Your task to perform on an android device: Show the shopping cart on target.com. Add razer nari to the cart on target.com Image 0: 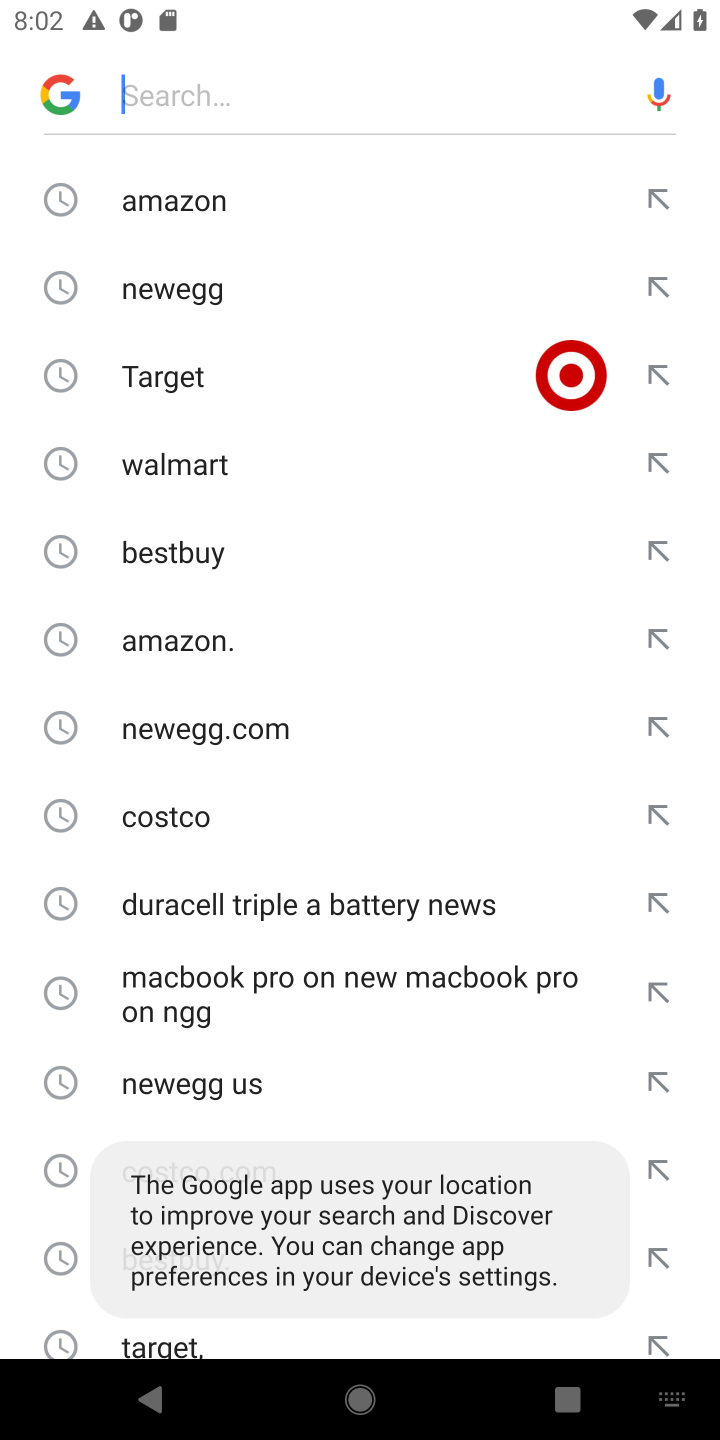
Step 0: press home button
Your task to perform on an android device: Show the shopping cart on target.com. Add razer nari to the cart on target.com Image 1: 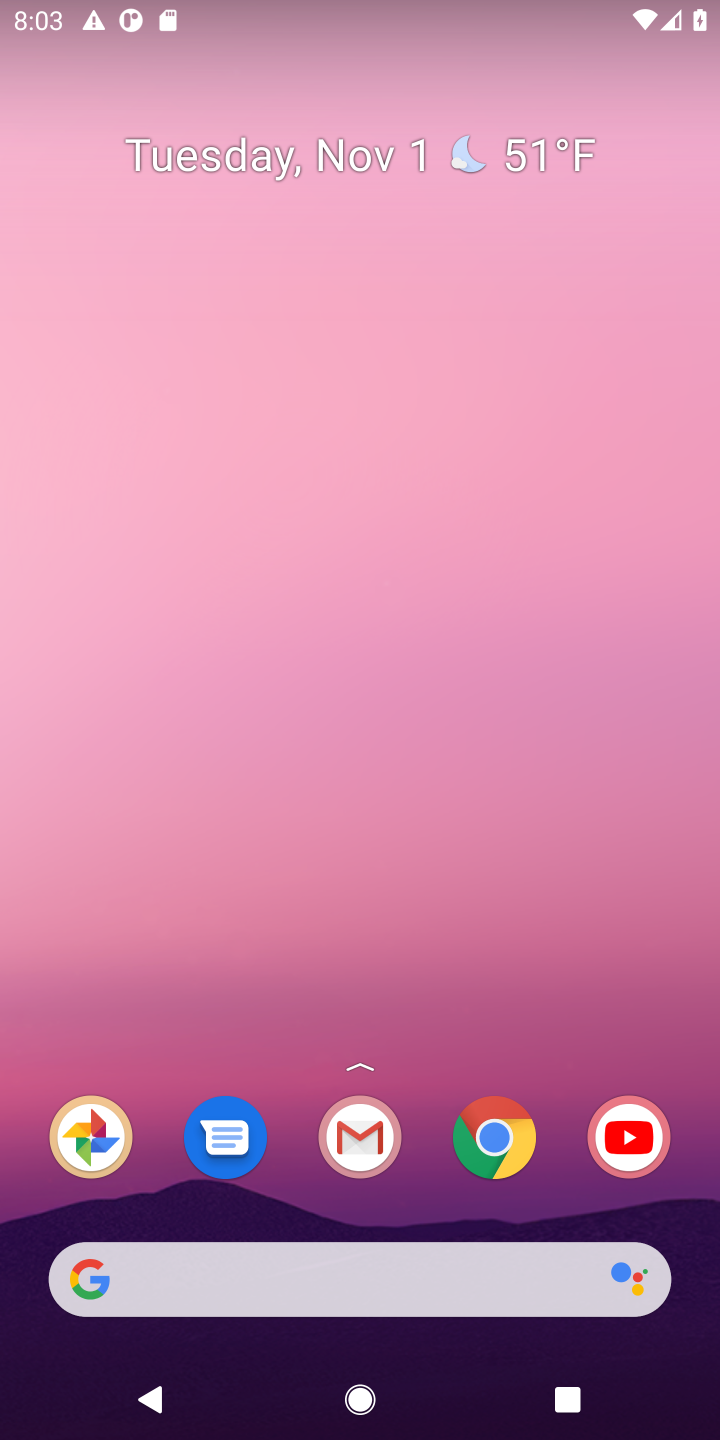
Step 1: click (476, 1153)
Your task to perform on an android device: Show the shopping cart on target.com. Add razer nari to the cart on target.com Image 2: 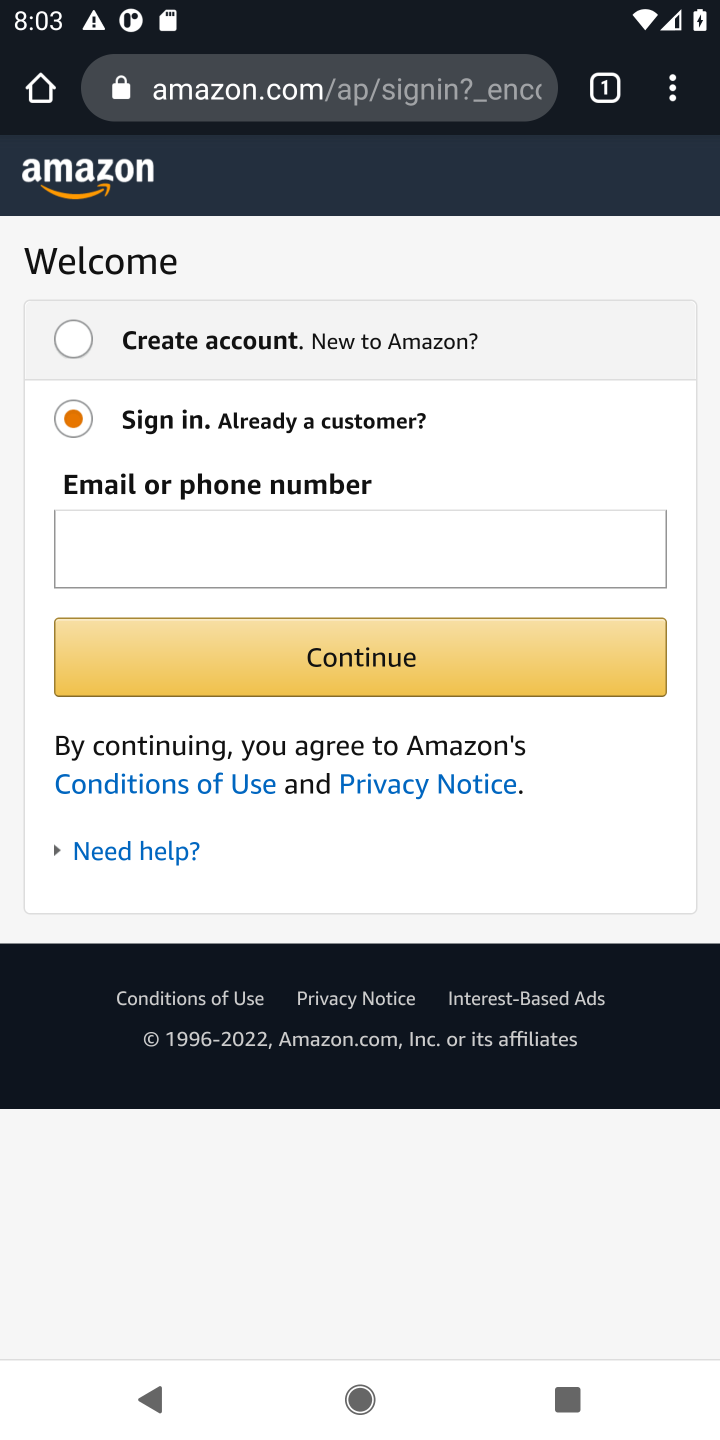
Step 2: click (334, 95)
Your task to perform on an android device: Show the shopping cart on target.com. Add razer nari to the cart on target.com Image 3: 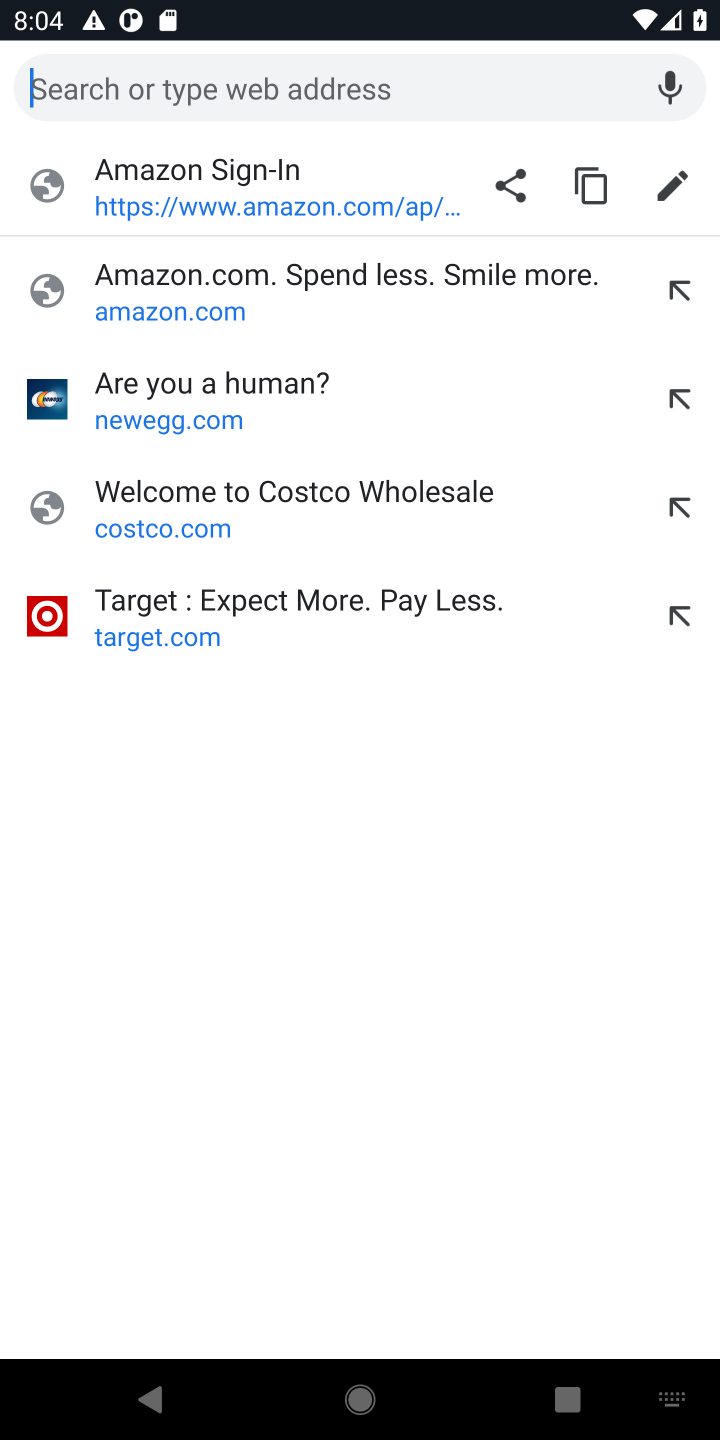
Step 3: type "target.com"
Your task to perform on an android device: Show the shopping cart on target.com. Add razer nari to the cart on target.com Image 4: 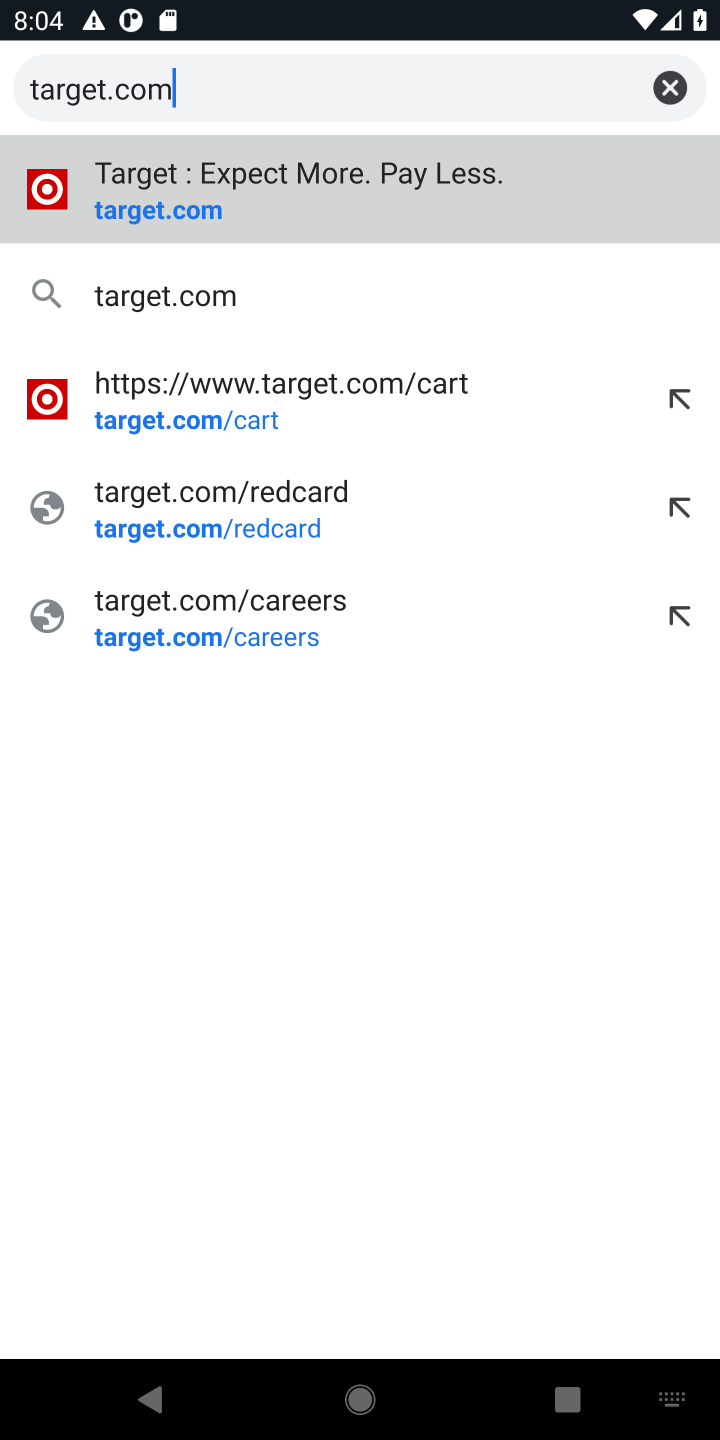
Step 4: click (395, 180)
Your task to perform on an android device: Show the shopping cart on target.com. Add razer nari to the cart on target.com Image 5: 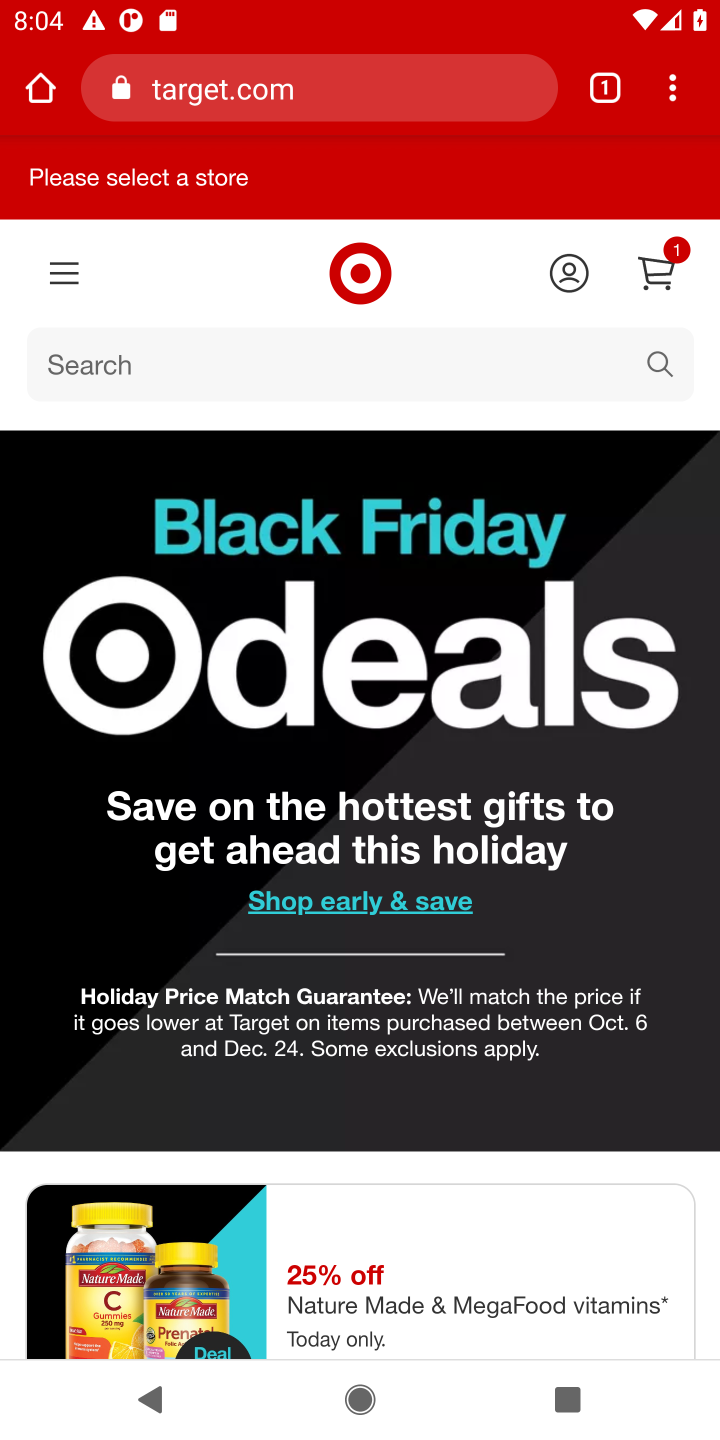
Step 5: click (437, 379)
Your task to perform on an android device: Show the shopping cart on target.com. Add razer nari to the cart on target.com Image 6: 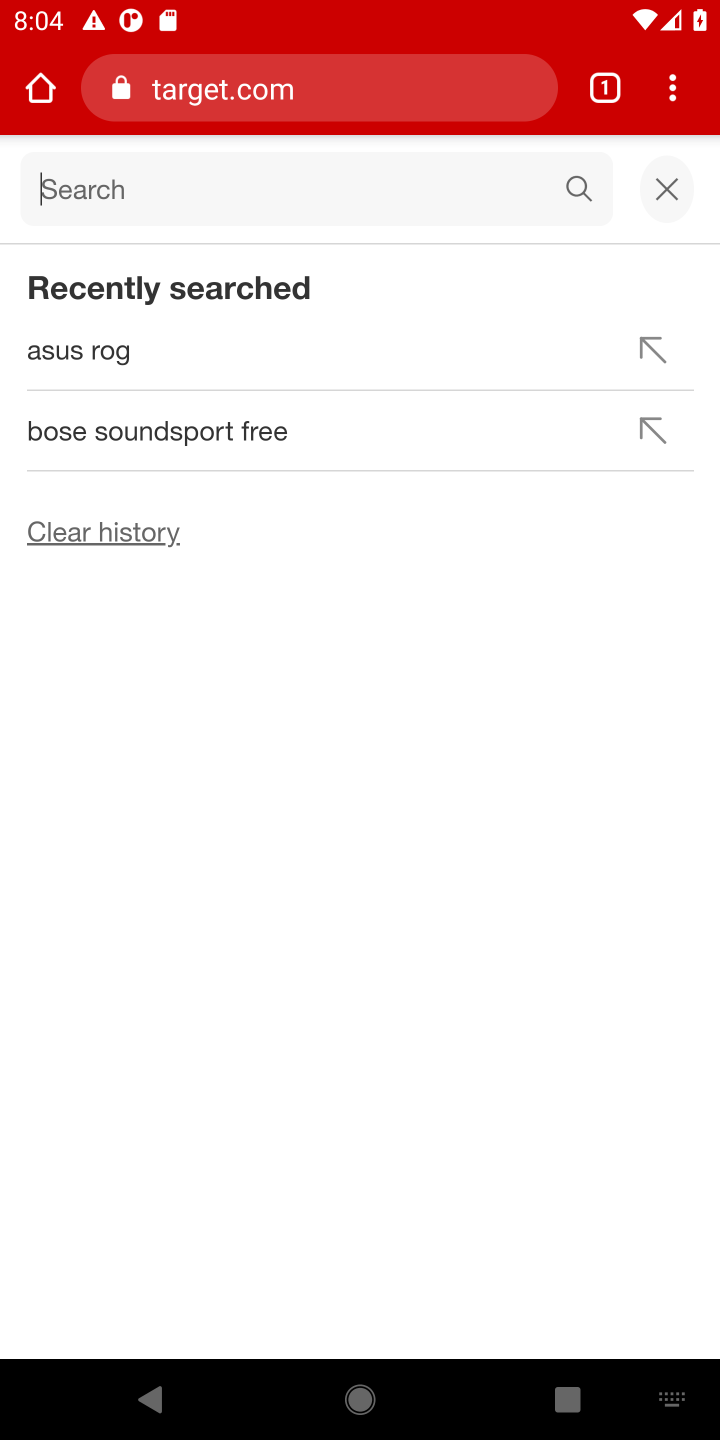
Step 6: type "razer nari"
Your task to perform on an android device: Show the shopping cart on target.com. Add razer nari to the cart on target.com Image 7: 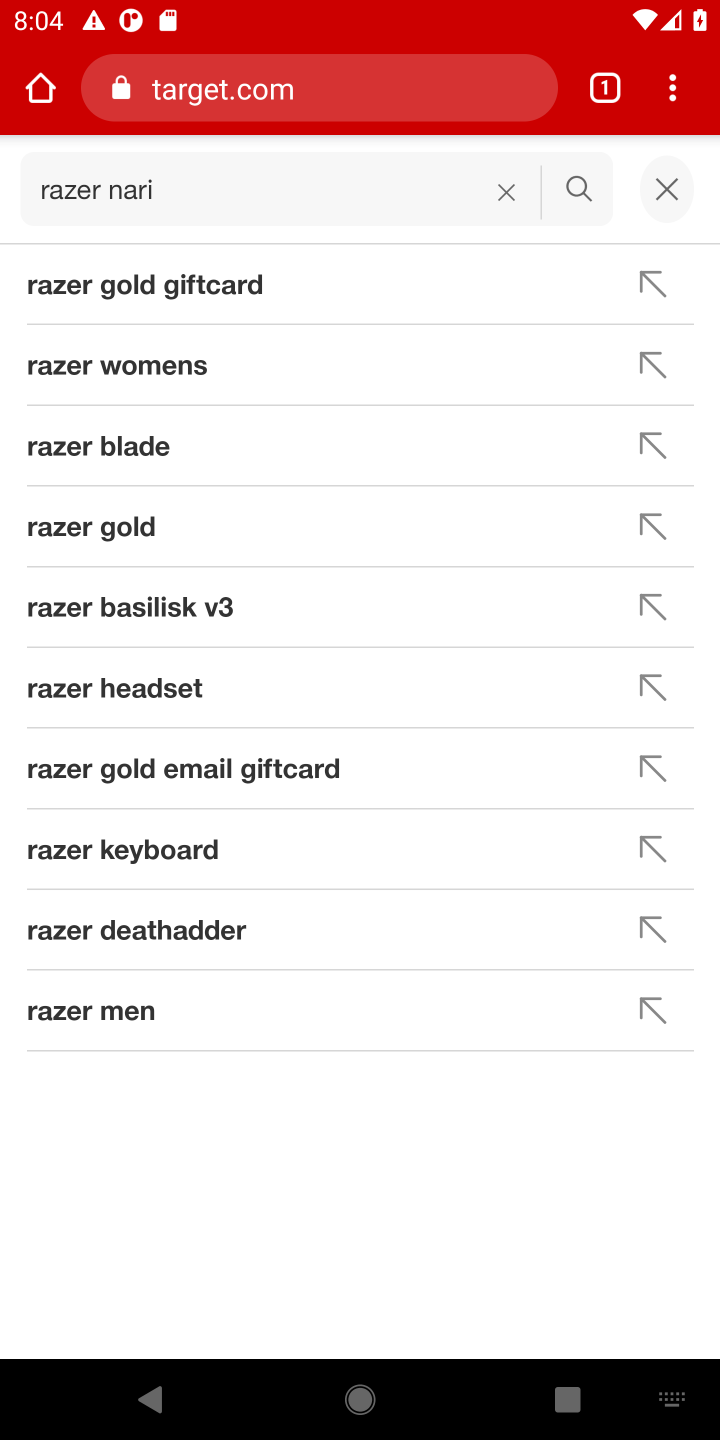
Step 7: press enter
Your task to perform on an android device: Show the shopping cart on target.com. Add razer nari to the cart on target.com Image 8: 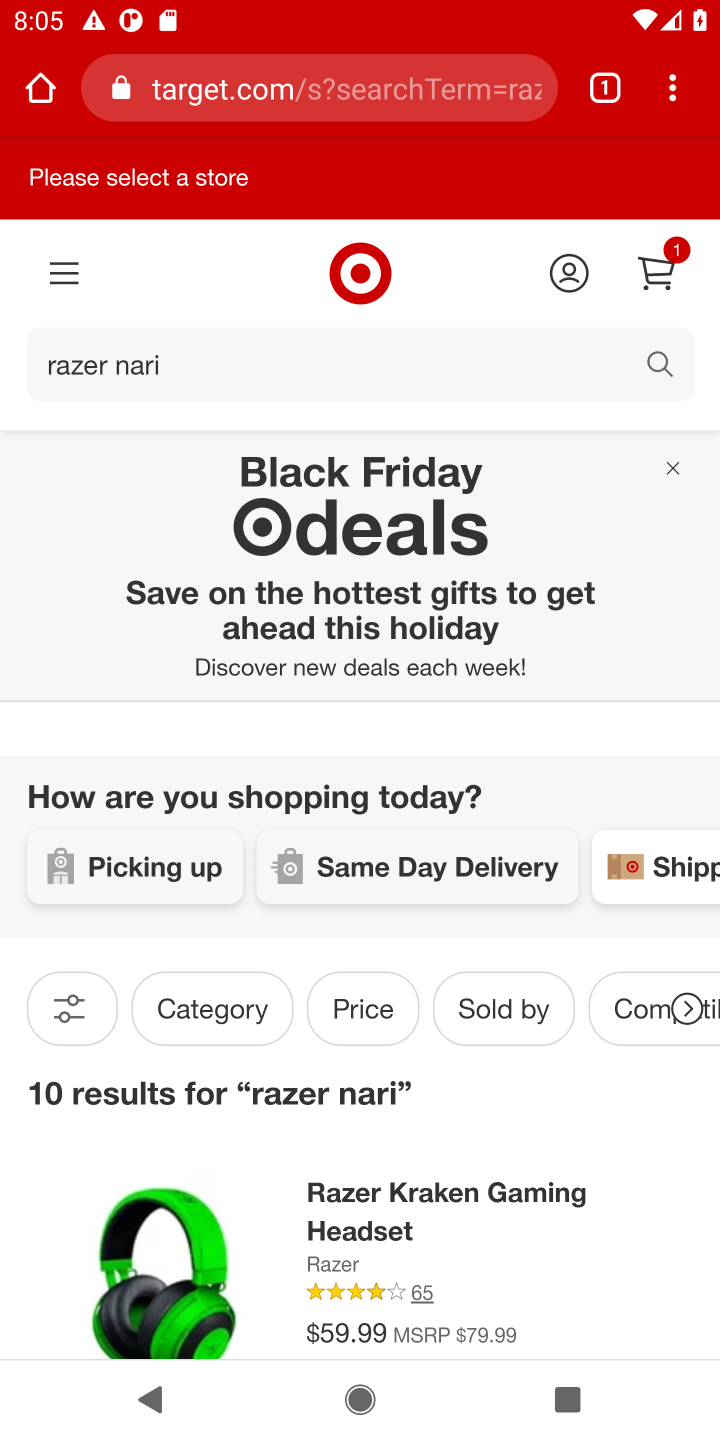
Step 8: drag from (457, 1082) to (379, 216)
Your task to perform on an android device: Show the shopping cart on target.com. Add razer nari to the cart on target.com Image 9: 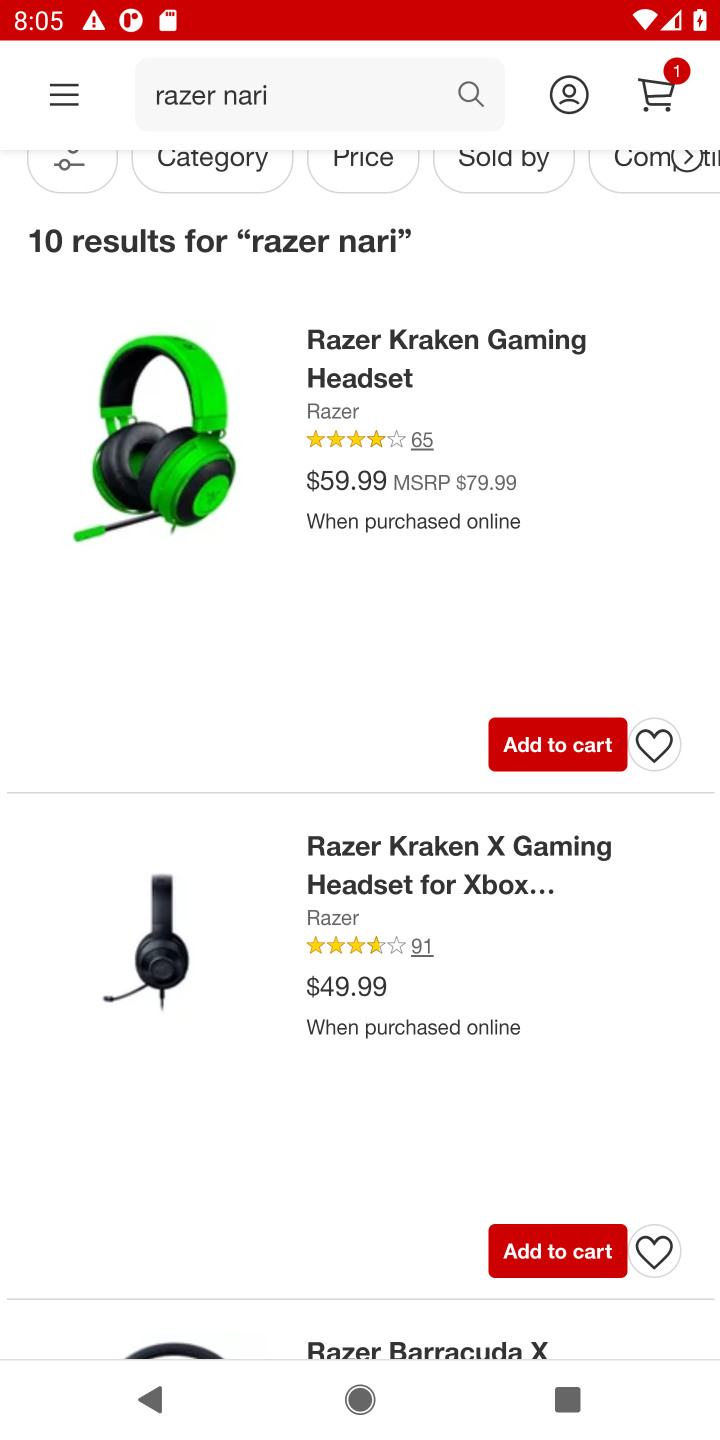
Step 9: click (143, 467)
Your task to perform on an android device: Show the shopping cart on target.com. Add razer nari to the cart on target.com Image 10: 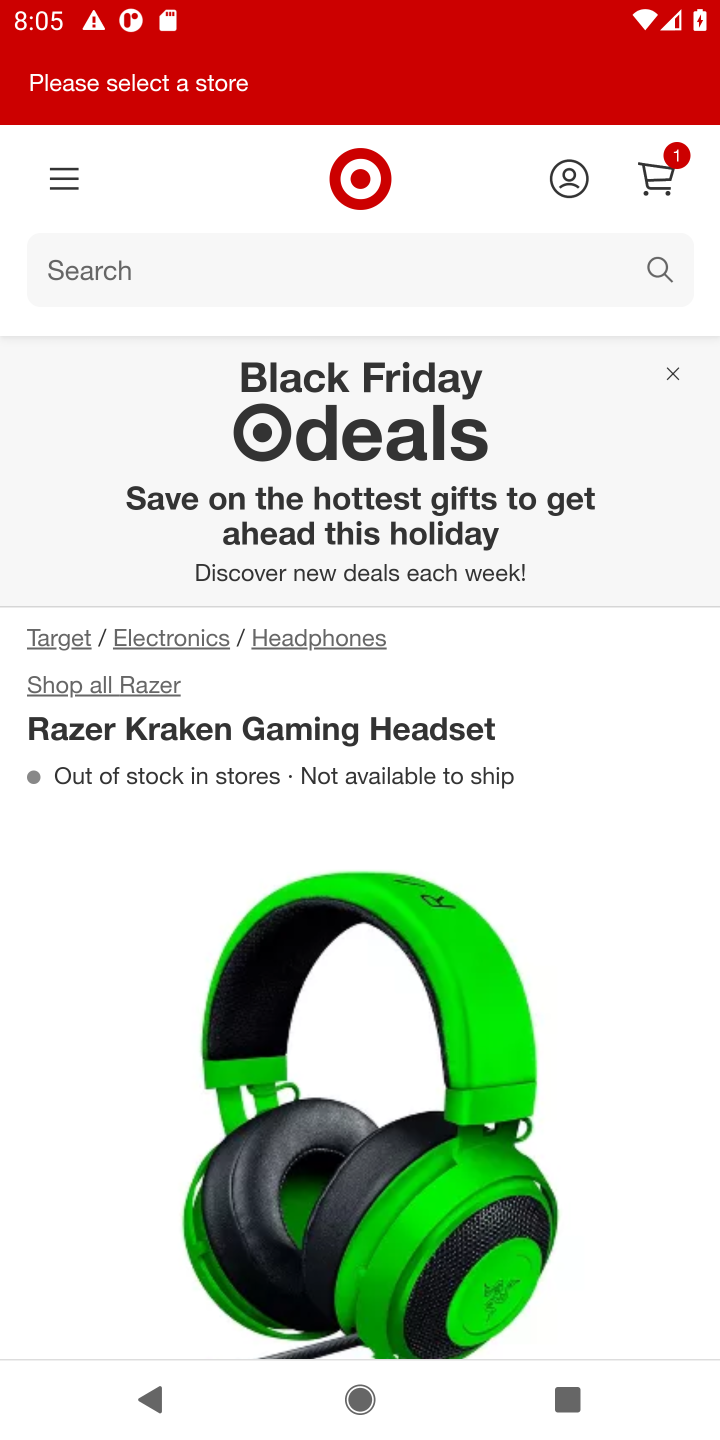
Step 10: drag from (412, 1228) to (327, 326)
Your task to perform on an android device: Show the shopping cart on target.com. Add razer nari to the cart on target.com Image 11: 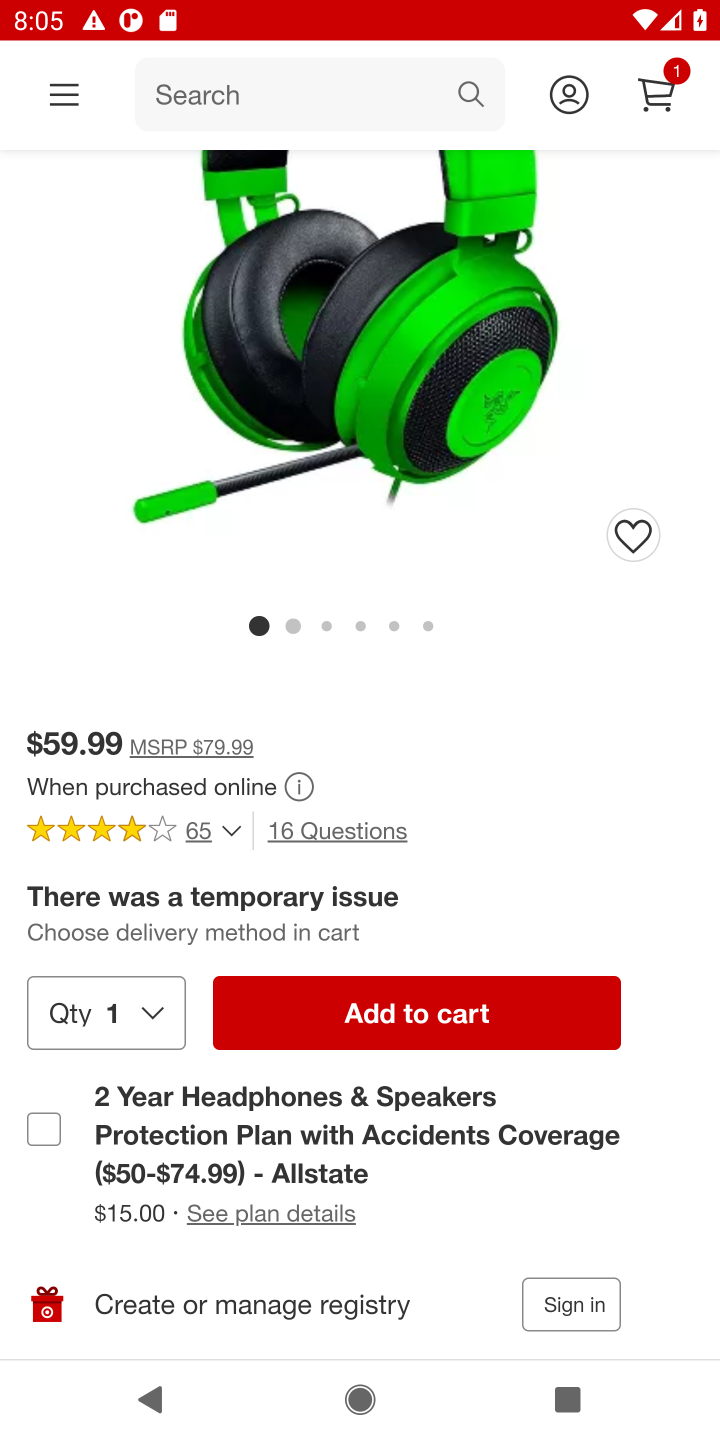
Step 11: click (389, 1003)
Your task to perform on an android device: Show the shopping cart on target.com. Add razer nari to the cart on target.com Image 12: 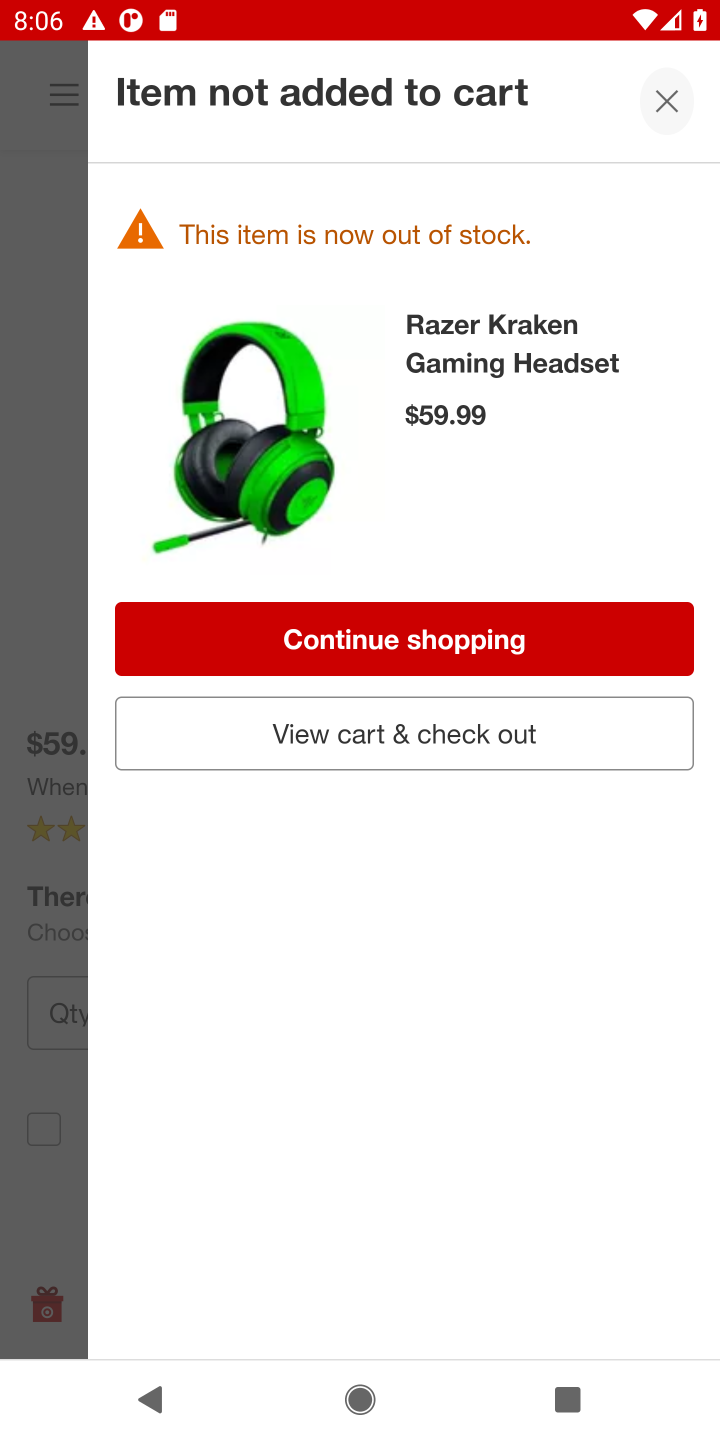
Step 12: task complete